Your task to perform on an android device: move an email to a new category in the gmail app Image 0: 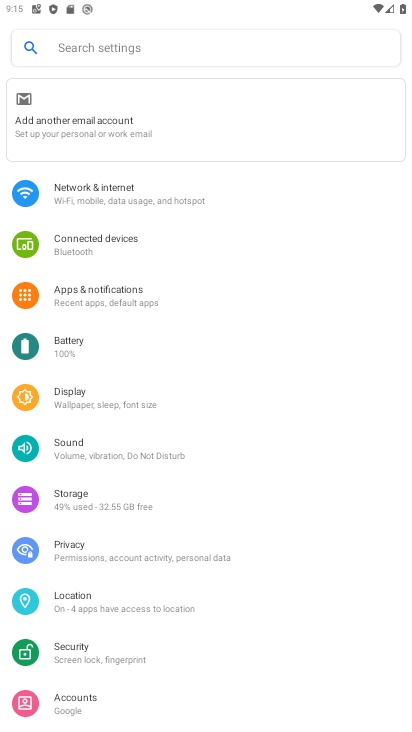
Step 0: press home button
Your task to perform on an android device: move an email to a new category in the gmail app Image 1: 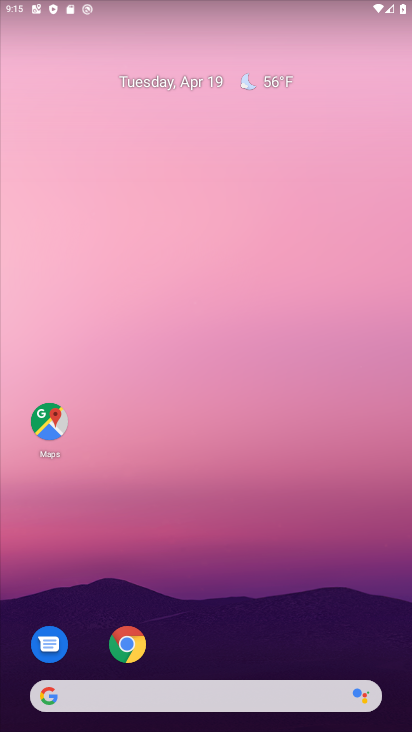
Step 1: drag from (194, 665) to (214, 179)
Your task to perform on an android device: move an email to a new category in the gmail app Image 2: 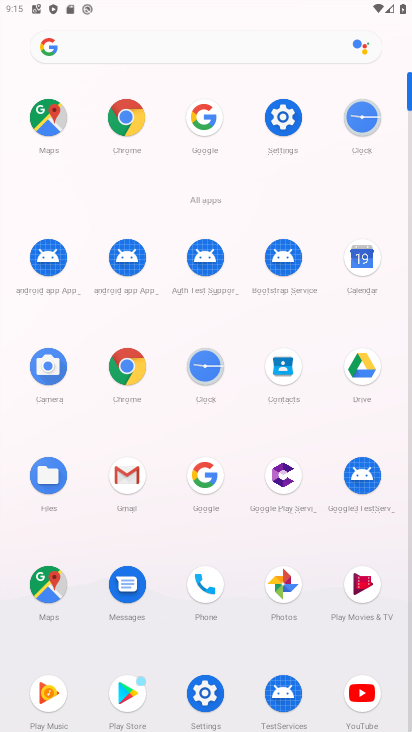
Step 2: click (124, 485)
Your task to perform on an android device: move an email to a new category in the gmail app Image 3: 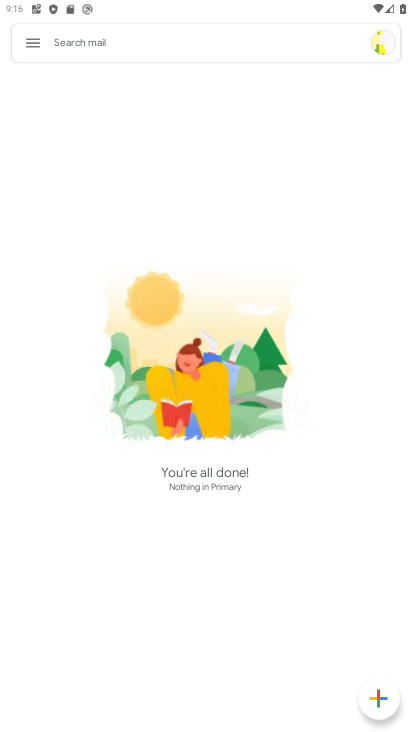
Step 3: click (34, 38)
Your task to perform on an android device: move an email to a new category in the gmail app Image 4: 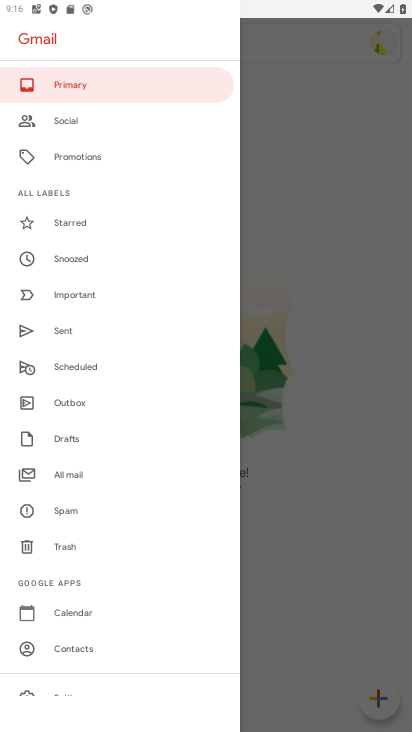
Step 4: click (92, 477)
Your task to perform on an android device: move an email to a new category in the gmail app Image 5: 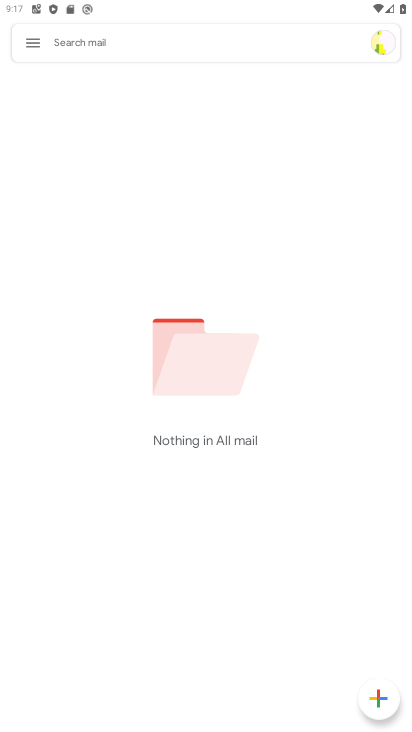
Step 5: task complete